Your task to perform on an android device: Open the stopwatch Image 0: 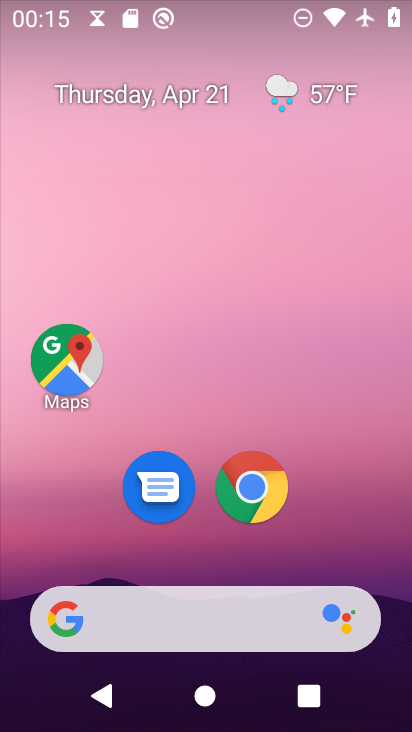
Step 0: drag from (381, 508) to (283, 59)
Your task to perform on an android device: Open the stopwatch Image 1: 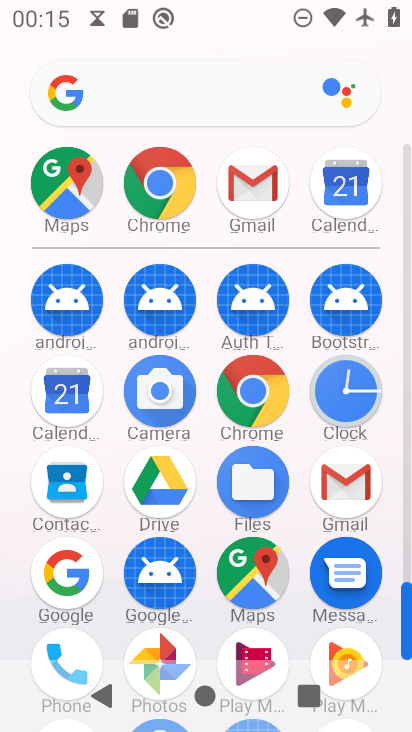
Step 1: click (342, 388)
Your task to perform on an android device: Open the stopwatch Image 2: 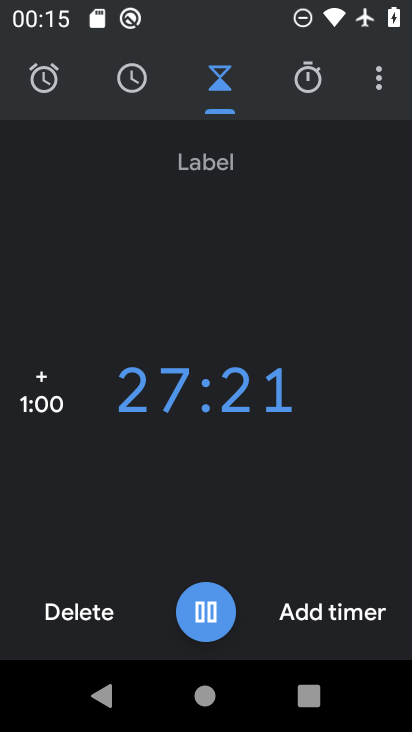
Step 2: click (315, 83)
Your task to perform on an android device: Open the stopwatch Image 3: 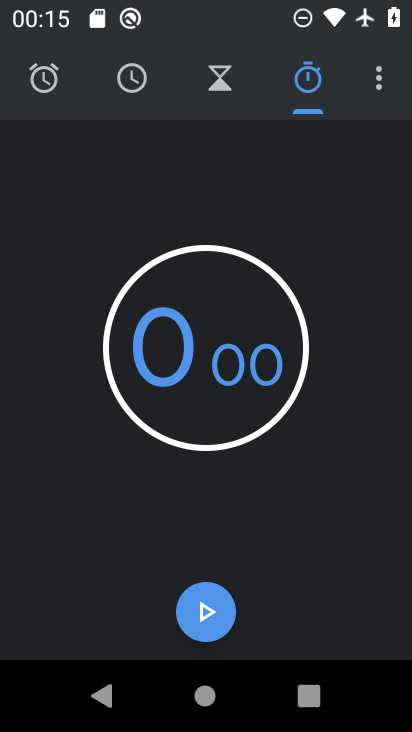
Step 3: click (212, 592)
Your task to perform on an android device: Open the stopwatch Image 4: 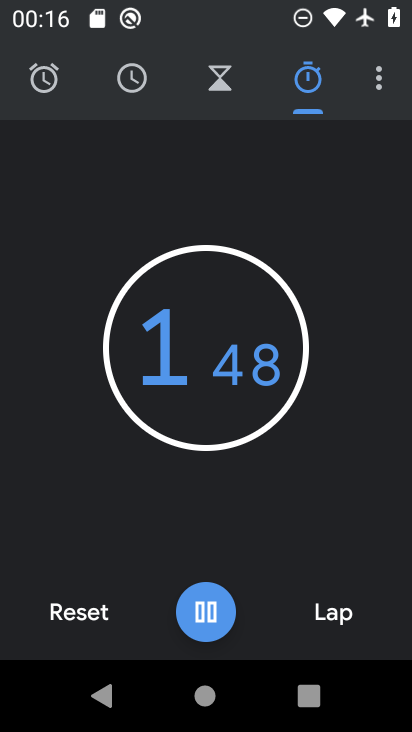
Step 4: click (202, 601)
Your task to perform on an android device: Open the stopwatch Image 5: 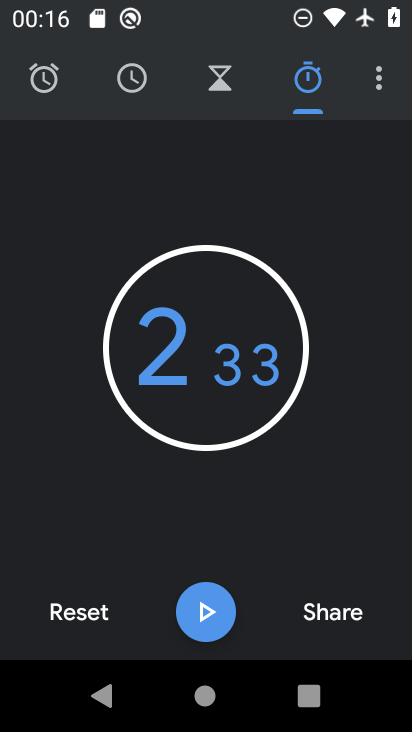
Step 5: task complete